Your task to perform on an android device: Open accessibility settings Image 0: 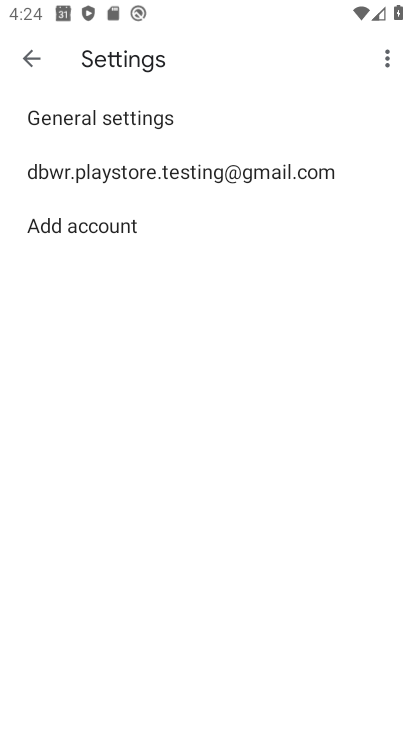
Step 0: press home button
Your task to perform on an android device: Open accessibility settings Image 1: 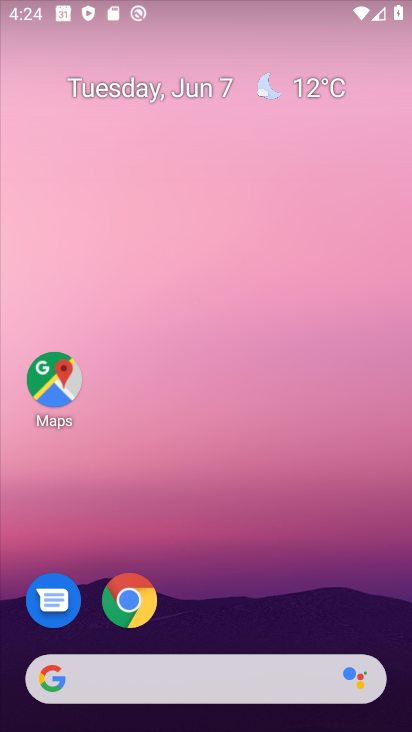
Step 1: drag from (185, 603) to (179, 291)
Your task to perform on an android device: Open accessibility settings Image 2: 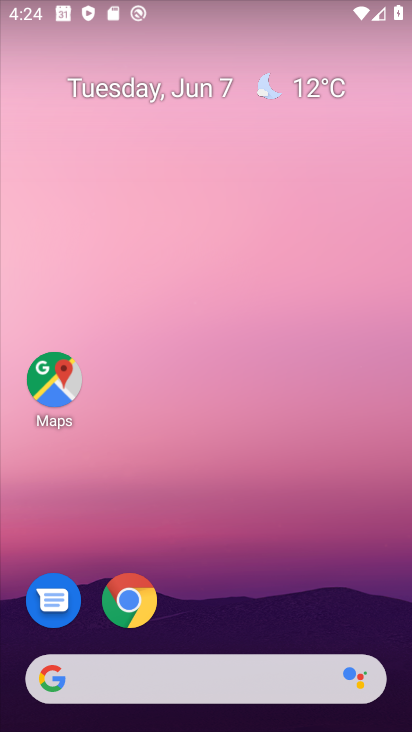
Step 2: drag from (208, 647) to (204, 190)
Your task to perform on an android device: Open accessibility settings Image 3: 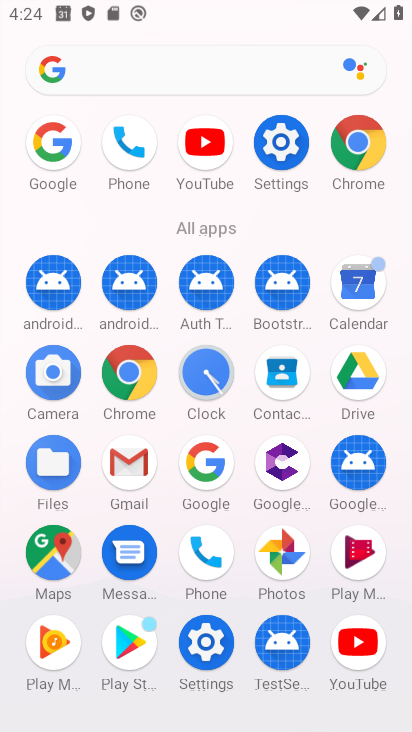
Step 3: click (279, 157)
Your task to perform on an android device: Open accessibility settings Image 4: 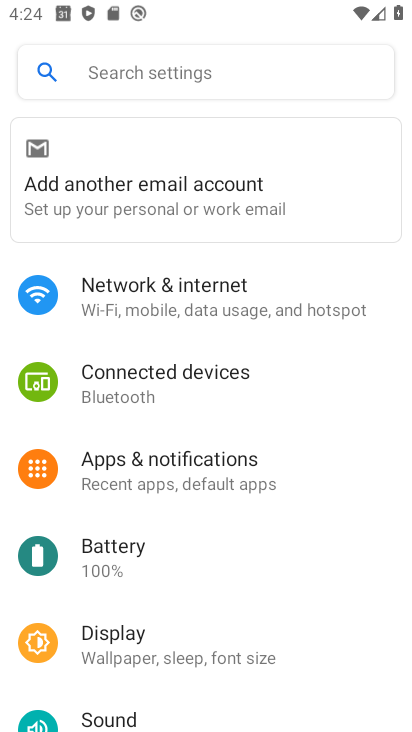
Step 4: drag from (140, 693) to (223, 147)
Your task to perform on an android device: Open accessibility settings Image 5: 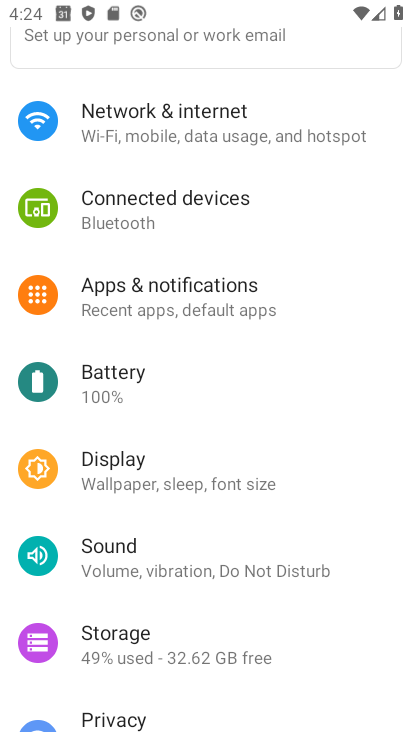
Step 5: drag from (181, 671) to (242, 190)
Your task to perform on an android device: Open accessibility settings Image 6: 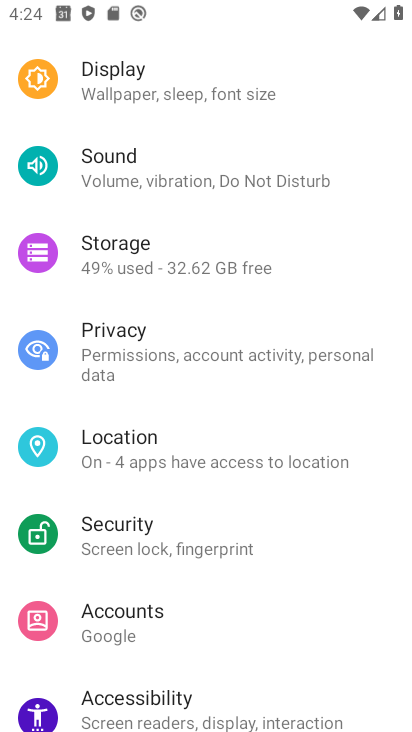
Step 6: drag from (167, 620) to (204, 194)
Your task to perform on an android device: Open accessibility settings Image 7: 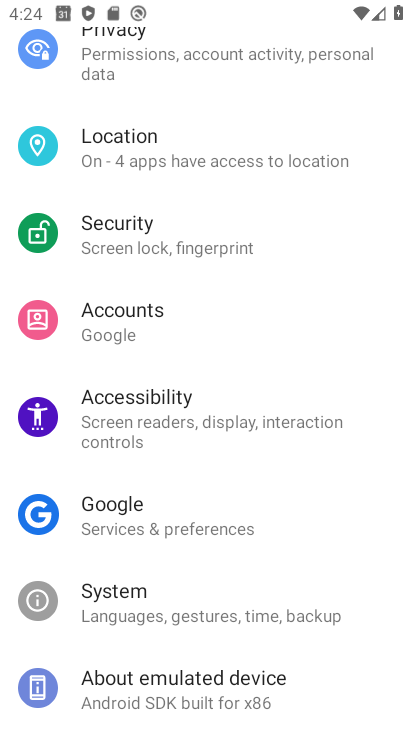
Step 7: click (128, 415)
Your task to perform on an android device: Open accessibility settings Image 8: 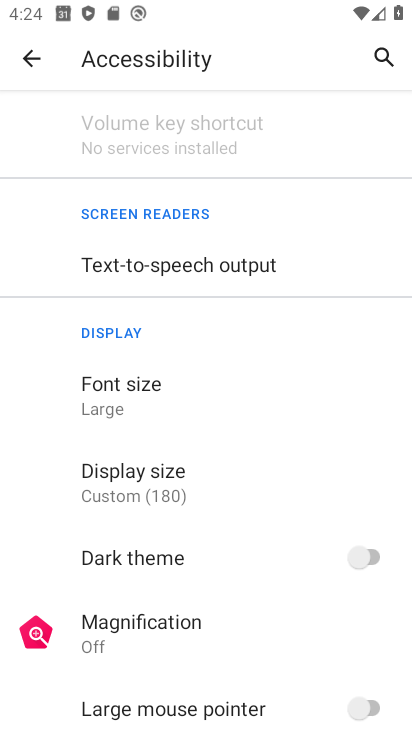
Step 8: task complete